Your task to perform on an android device: snooze an email in the gmail app Image 0: 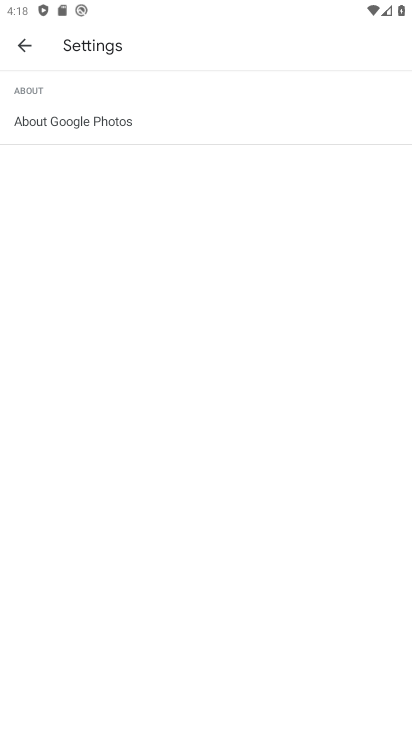
Step 0: press home button
Your task to perform on an android device: snooze an email in the gmail app Image 1: 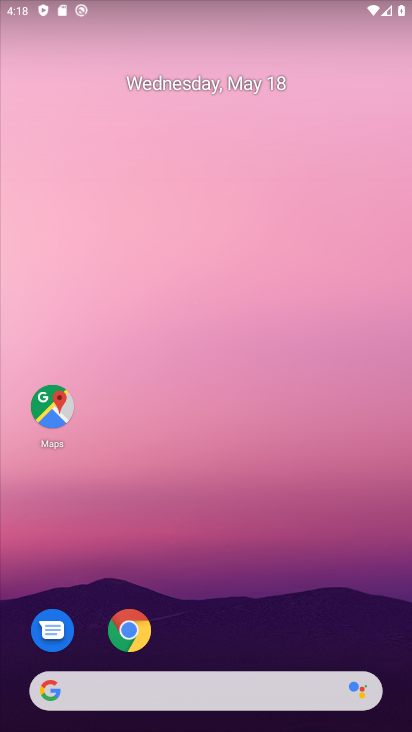
Step 1: drag from (198, 648) to (303, 0)
Your task to perform on an android device: snooze an email in the gmail app Image 2: 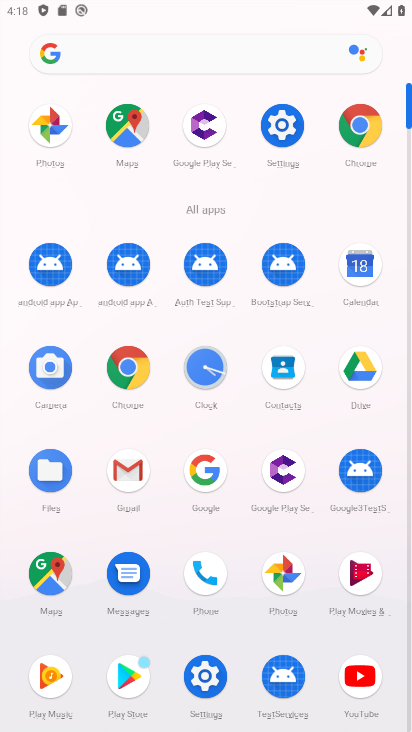
Step 2: click (124, 474)
Your task to perform on an android device: snooze an email in the gmail app Image 3: 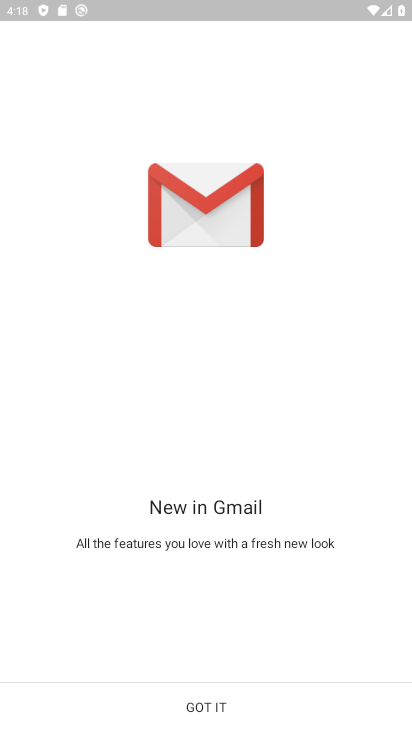
Step 3: click (182, 714)
Your task to perform on an android device: snooze an email in the gmail app Image 4: 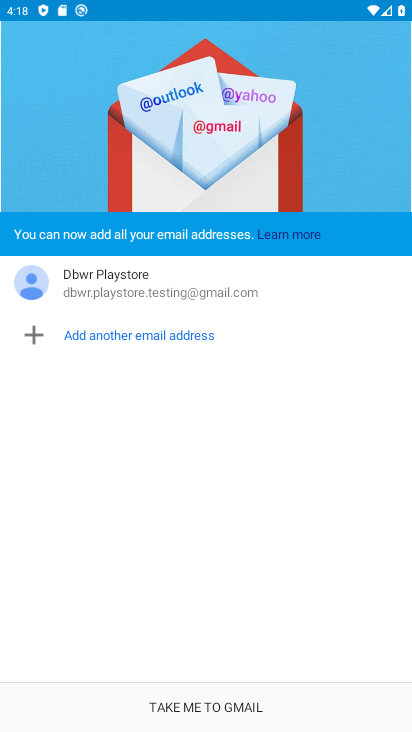
Step 4: click (220, 719)
Your task to perform on an android device: snooze an email in the gmail app Image 5: 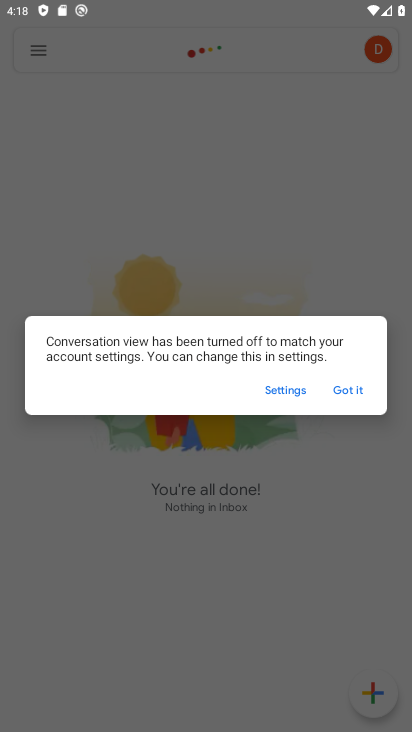
Step 5: click (356, 387)
Your task to perform on an android device: snooze an email in the gmail app Image 6: 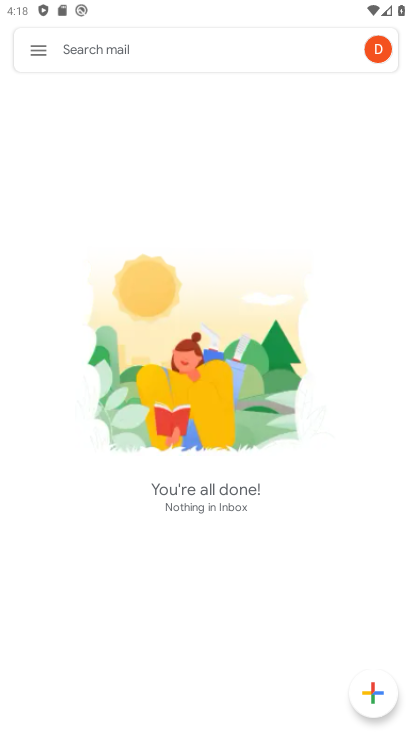
Step 6: click (40, 40)
Your task to perform on an android device: snooze an email in the gmail app Image 7: 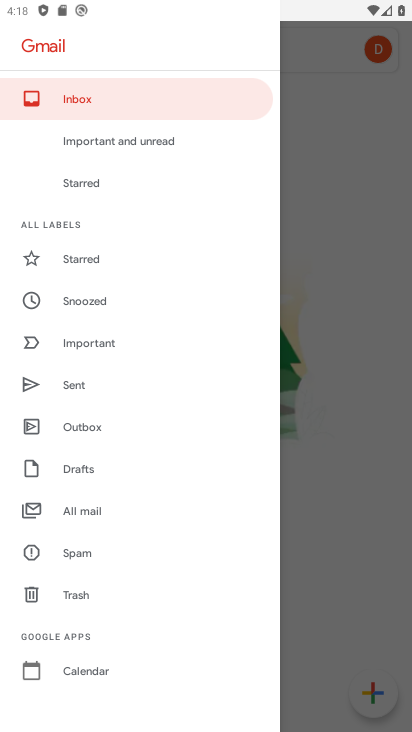
Step 7: click (64, 496)
Your task to perform on an android device: snooze an email in the gmail app Image 8: 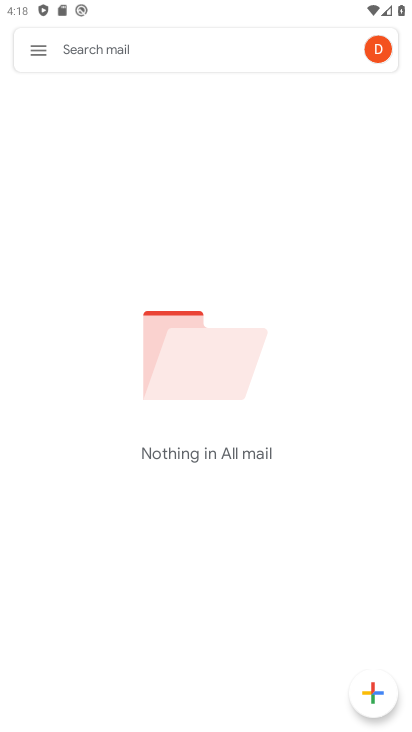
Step 8: task complete